Your task to perform on an android device: turn vacation reply on in the gmail app Image 0: 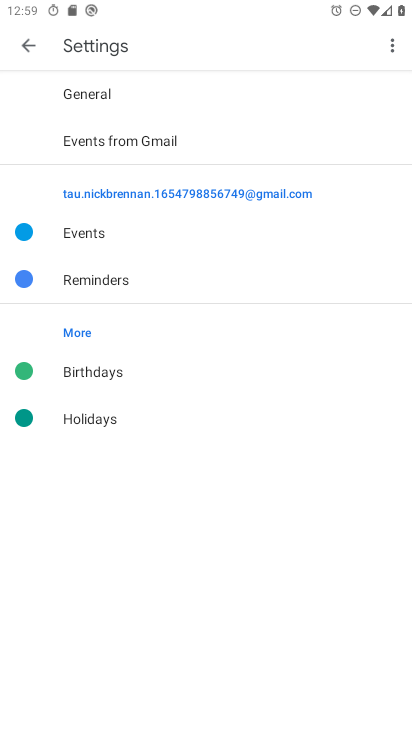
Step 0: press home button
Your task to perform on an android device: turn vacation reply on in the gmail app Image 1: 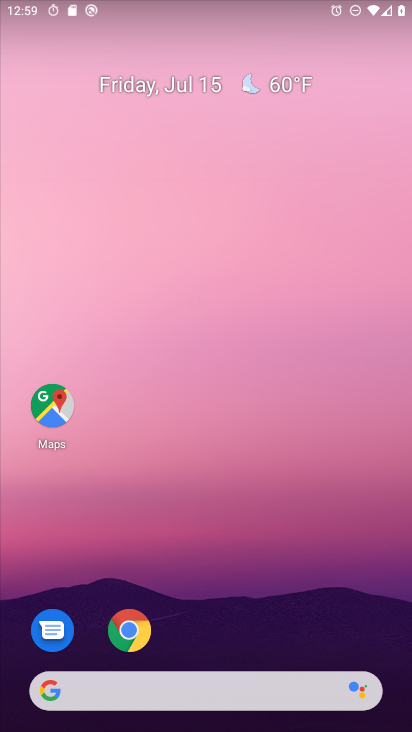
Step 1: drag from (189, 608) to (189, 222)
Your task to perform on an android device: turn vacation reply on in the gmail app Image 2: 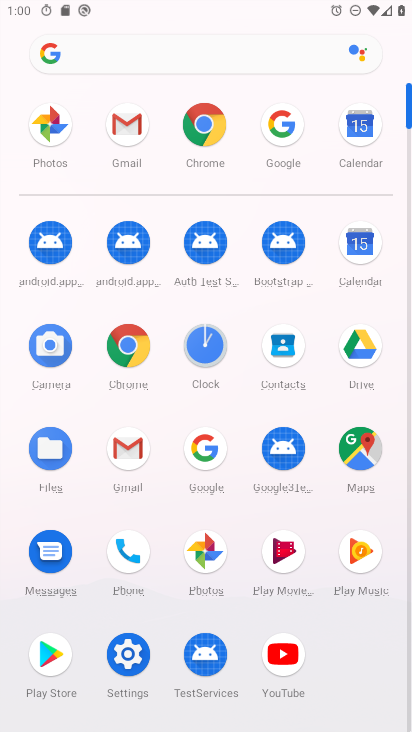
Step 2: click (114, 136)
Your task to perform on an android device: turn vacation reply on in the gmail app Image 3: 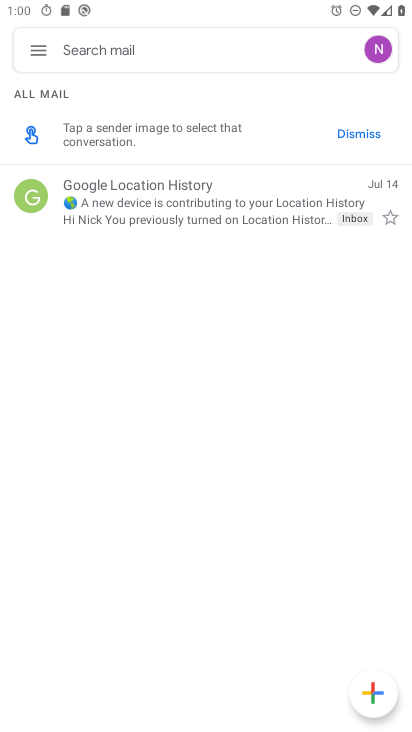
Step 3: click (38, 51)
Your task to perform on an android device: turn vacation reply on in the gmail app Image 4: 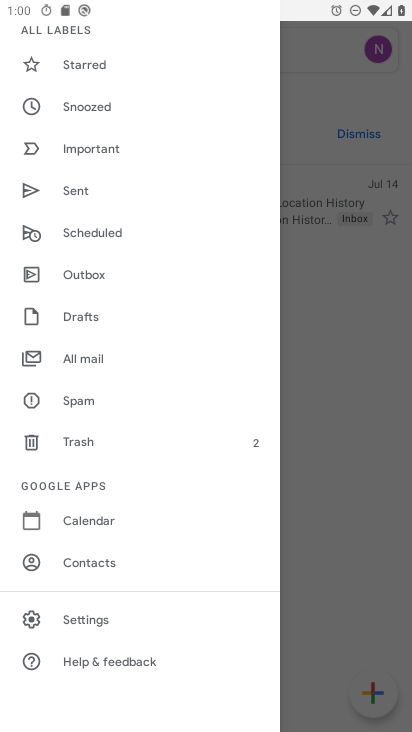
Step 4: click (98, 622)
Your task to perform on an android device: turn vacation reply on in the gmail app Image 5: 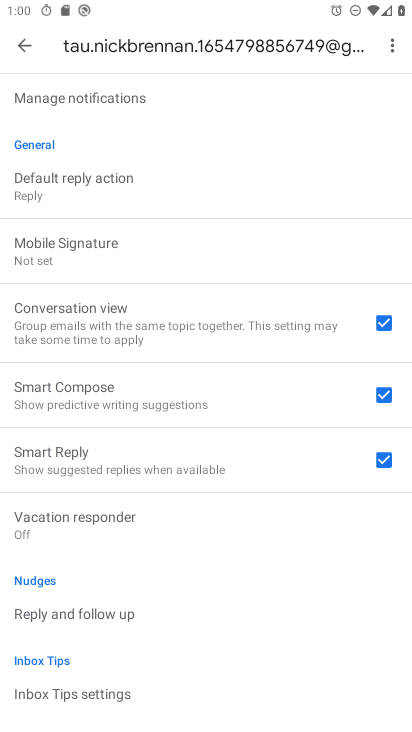
Step 5: click (121, 533)
Your task to perform on an android device: turn vacation reply on in the gmail app Image 6: 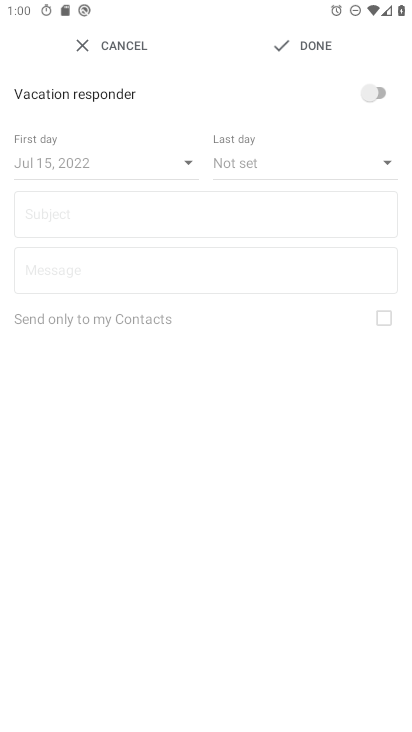
Step 6: click (381, 91)
Your task to perform on an android device: turn vacation reply on in the gmail app Image 7: 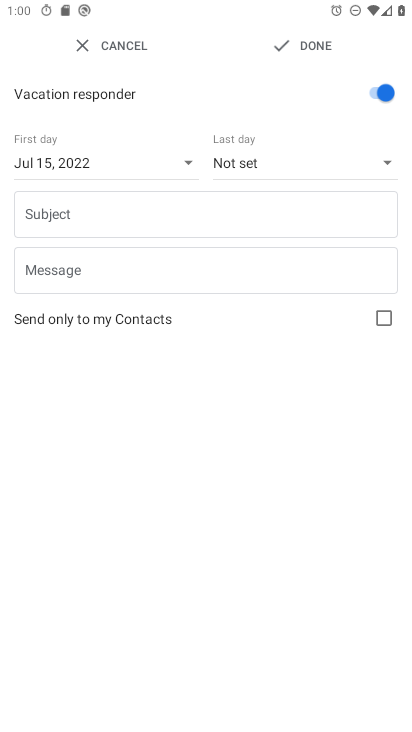
Step 7: task complete